Your task to perform on an android device: turn on improve location accuracy Image 0: 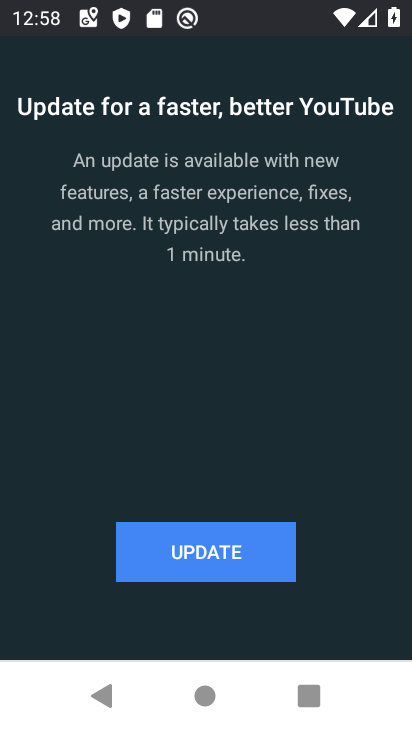
Step 0: press home button
Your task to perform on an android device: turn on improve location accuracy Image 1: 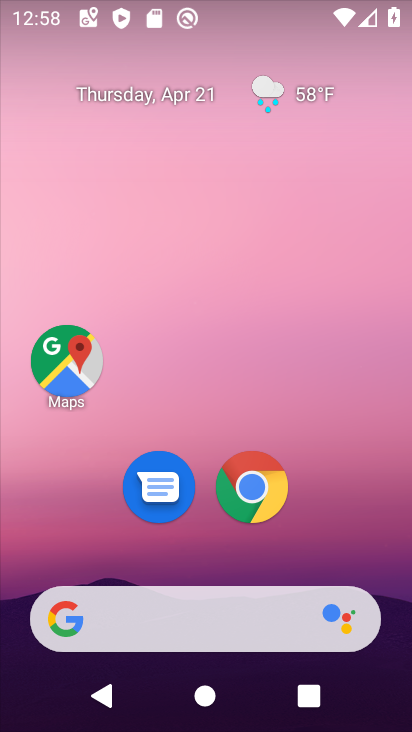
Step 1: drag from (345, 568) to (321, 26)
Your task to perform on an android device: turn on improve location accuracy Image 2: 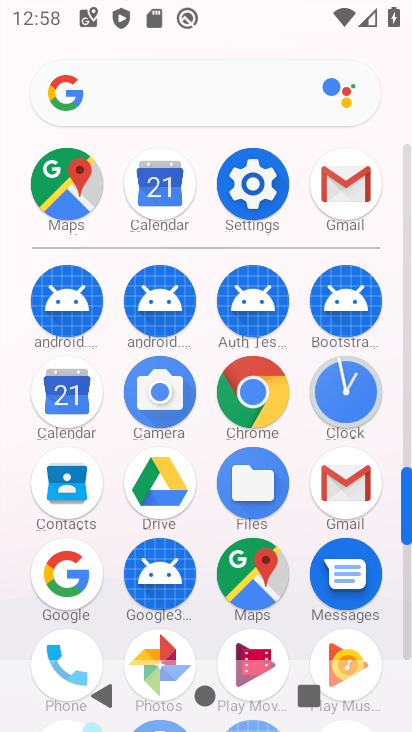
Step 2: click (245, 182)
Your task to perform on an android device: turn on improve location accuracy Image 3: 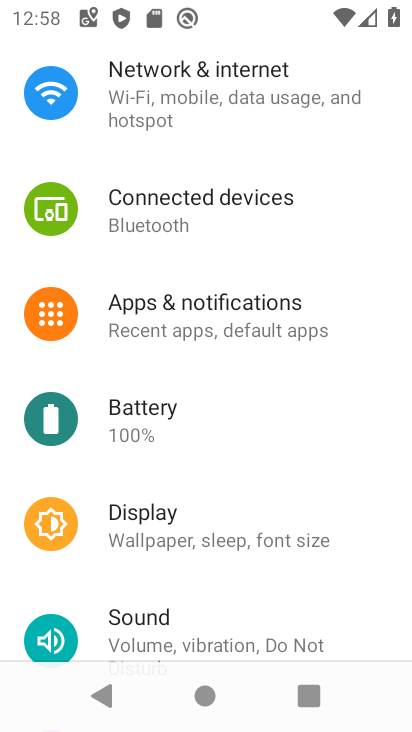
Step 3: drag from (357, 590) to (329, 260)
Your task to perform on an android device: turn on improve location accuracy Image 4: 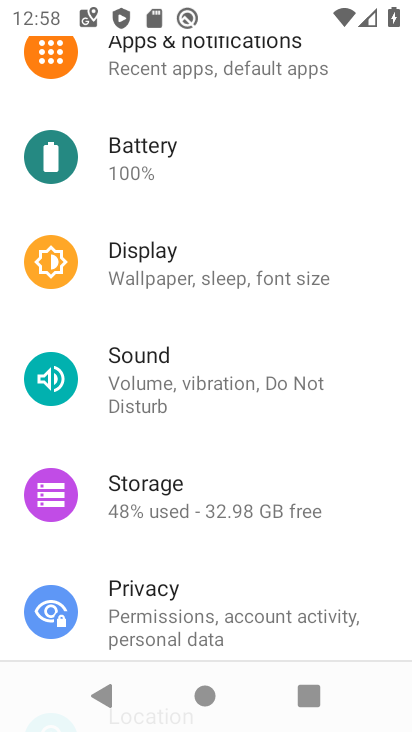
Step 4: drag from (335, 593) to (325, 323)
Your task to perform on an android device: turn on improve location accuracy Image 5: 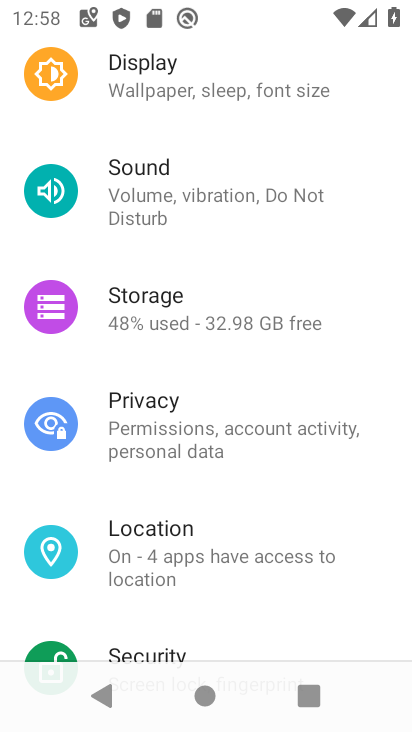
Step 5: click (168, 534)
Your task to perform on an android device: turn on improve location accuracy Image 6: 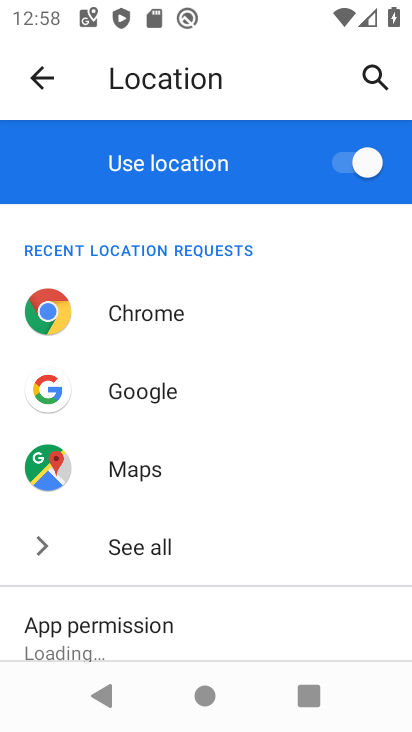
Step 6: drag from (244, 609) to (252, 54)
Your task to perform on an android device: turn on improve location accuracy Image 7: 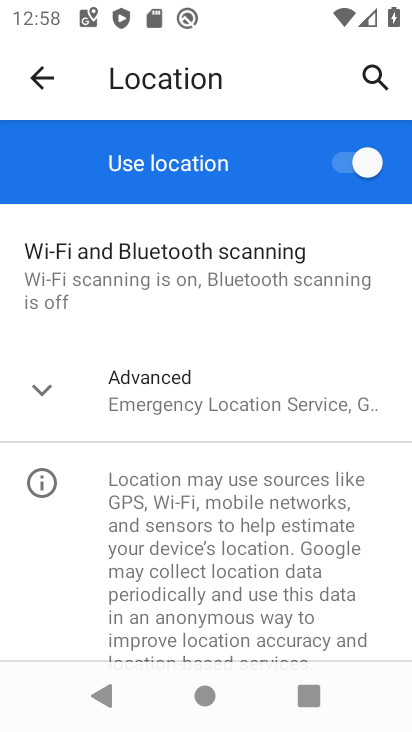
Step 7: click (41, 401)
Your task to perform on an android device: turn on improve location accuracy Image 8: 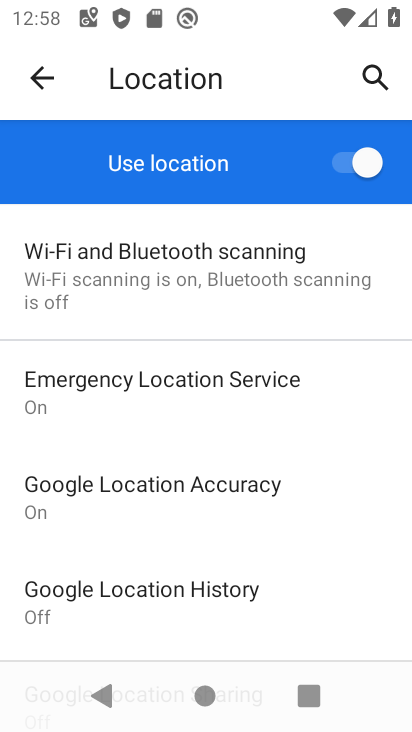
Step 8: click (138, 485)
Your task to perform on an android device: turn on improve location accuracy Image 9: 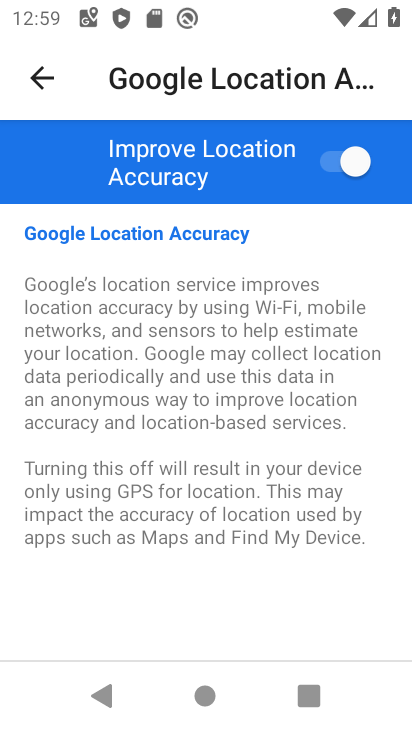
Step 9: task complete